Your task to perform on an android device: toggle translation in the chrome app Image 0: 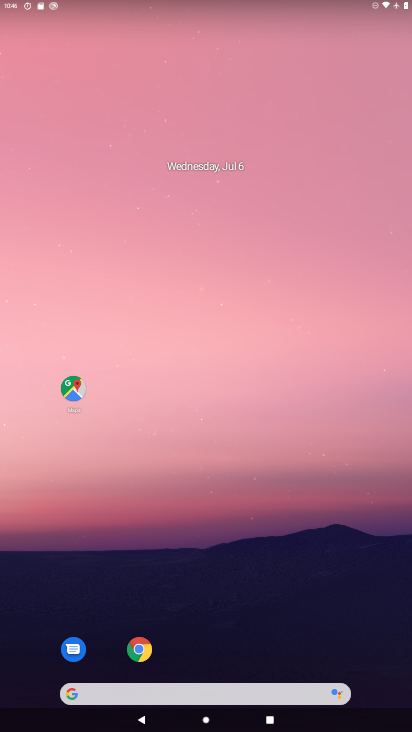
Step 0: click (137, 647)
Your task to perform on an android device: toggle translation in the chrome app Image 1: 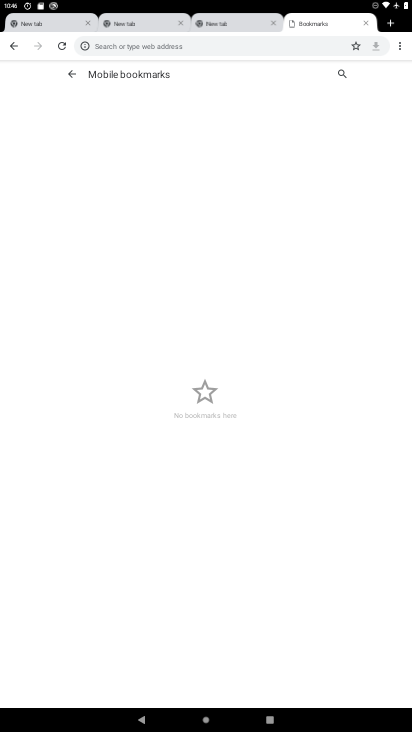
Step 1: click (9, 41)
Your task to perform on an android device: toggle translation in the chrome app Image 2: 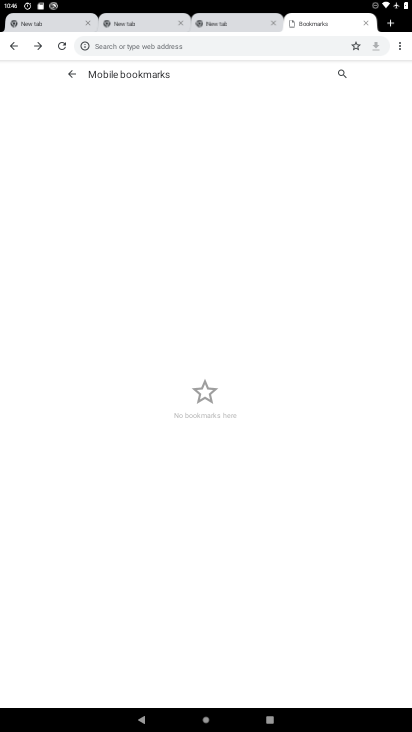
Step 2: press back button
Your task to perform on an android device: toggle translation in the chrome app Image 3: 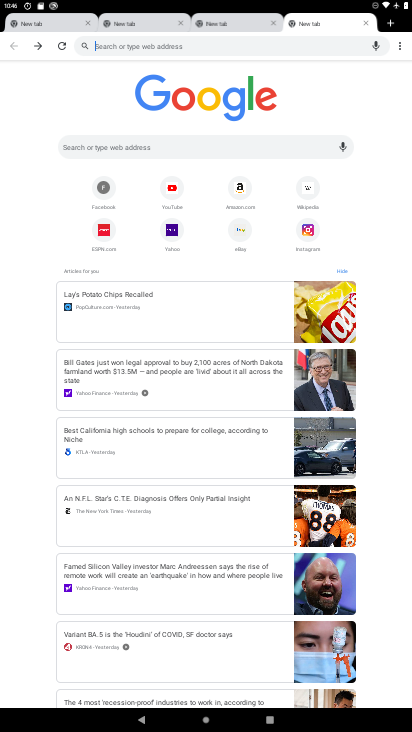
Step 3: click (398, 43)
Your task to perform on an android device: toggle translation in the chrome app Image 4: 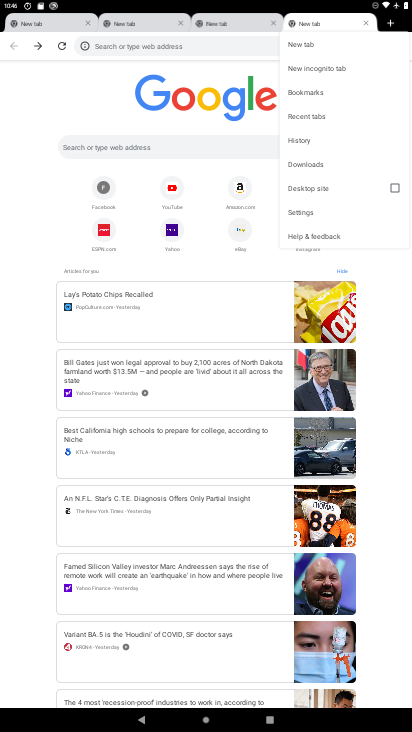
Step 4: click (300, 204)
Your task to perform on an android device: toggle translation in the chrome app Image 5: 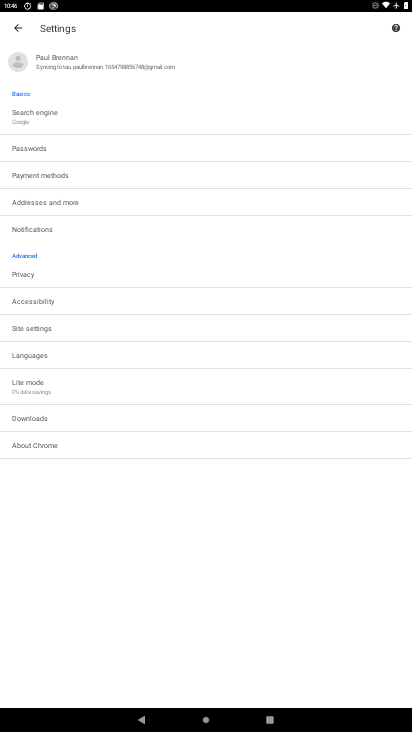
Step 5: click (55, 351)
Your task to perform on an android device: toggle translation in the chrome app Image 6: 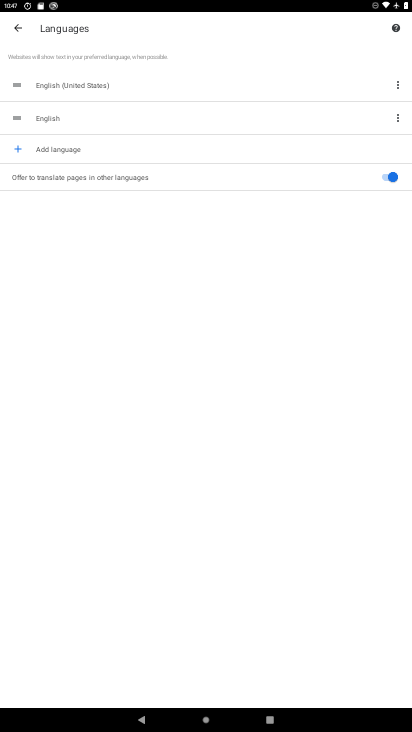
Step 6: click (383, 176)
Your task to perform on an android device: toggle translation in the chrome app Image 7: 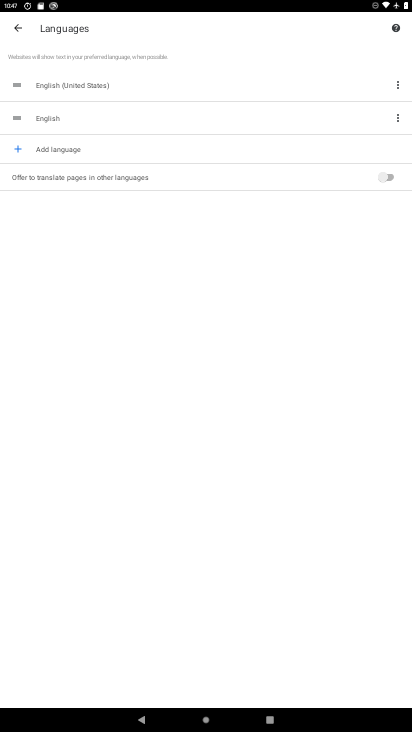
Step 7: task complete